Your task to perform on an android device: Open Chrome and go to settings Image 0: 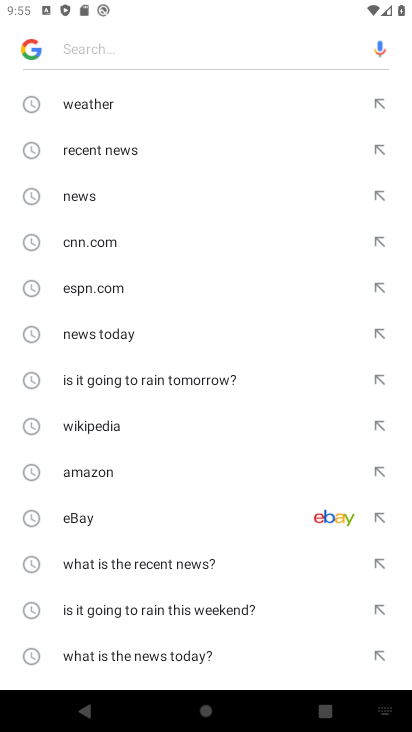
Step 0: press back button
Your task to perform on an android device: Open Chrome and go to settings Image 1: 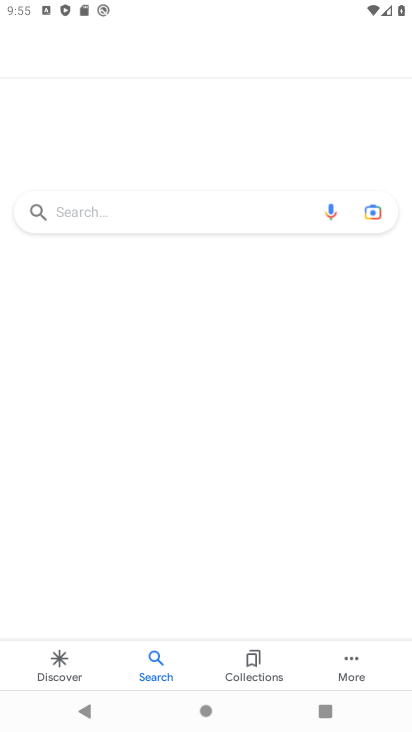
Step 1: press back button
Your task to perform on an android device: Open Chrome and go to settings Image 2: 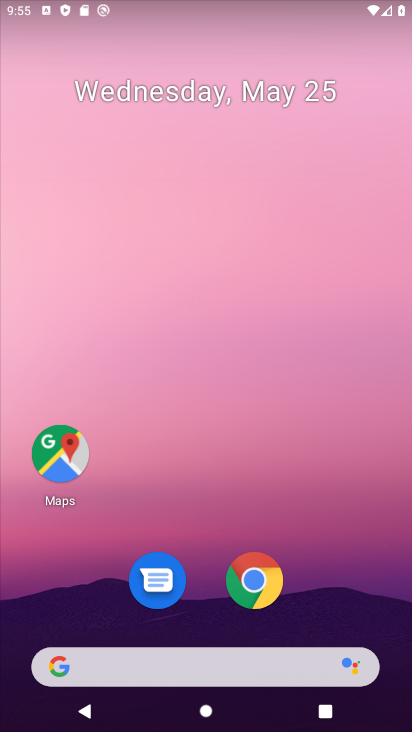
Step 2: click (253, 583)
Your task to perform on an android device: Open Chrome and go to settings Image 3: 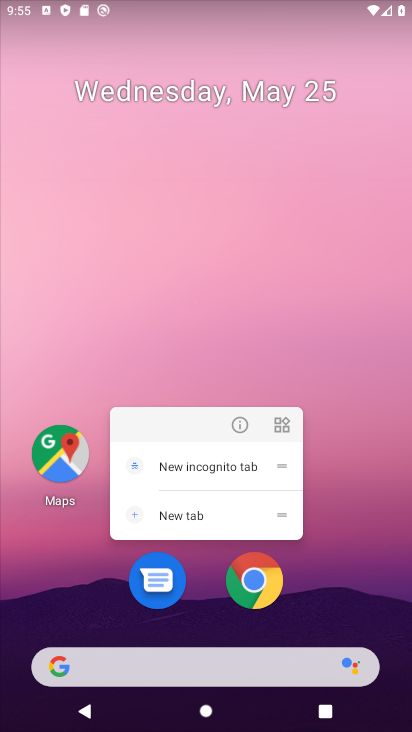
Step 3: click (249, 580)
Your task to perform on an android device: Open Chrome and go to settings Image 4: 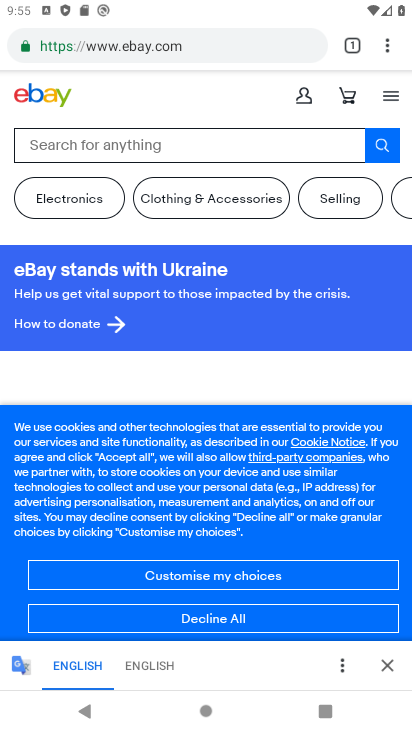
Step 4: click (383, 48)
Your task to perform on an android device: Open Chrome and go to settings Image 5: 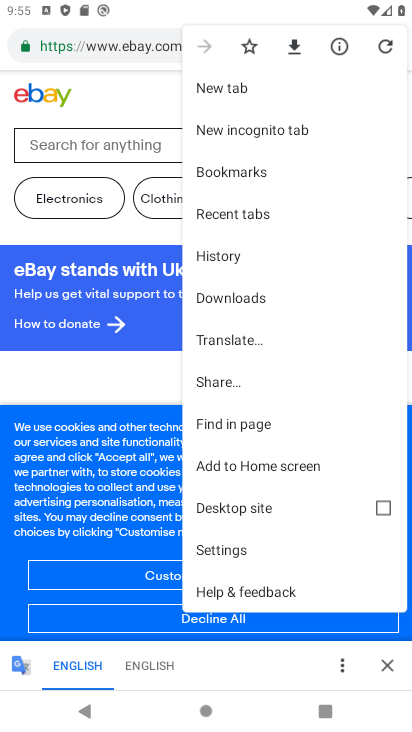
Step 5: click (235, 550)
Your task to perform on an android device: Open Chrome and go to settings Image 6: 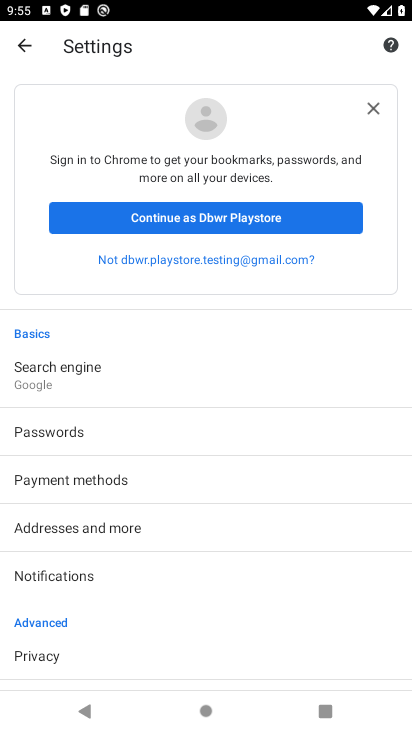
Step 6: task complete